Your task to perform on an android device: choose inbox layout in the gmail app Image 0: 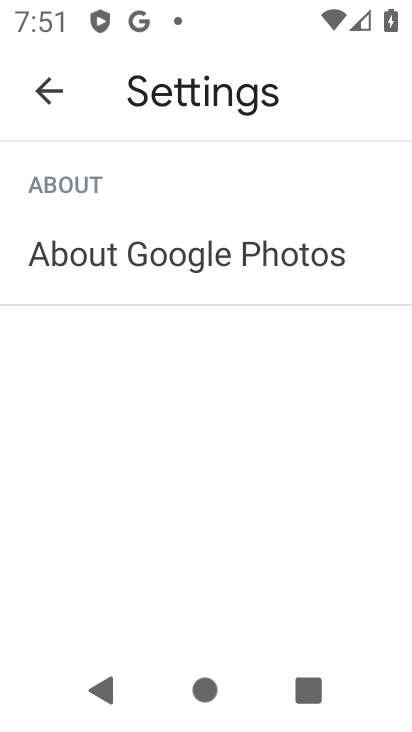
Step 0: press home button
Your task to perform on an android device: choose inbox layout in the gmail app Image 1: 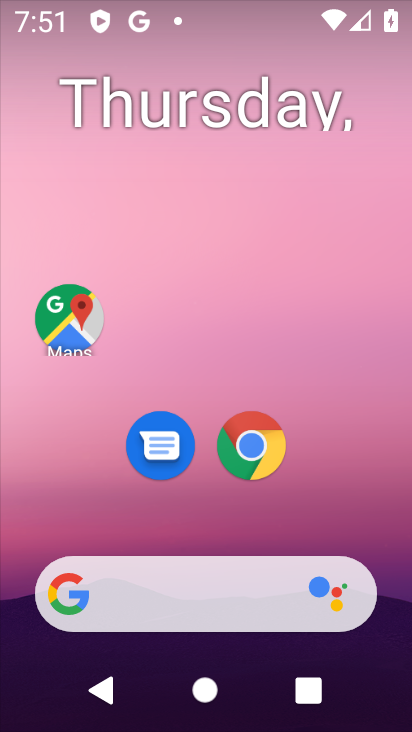
Step 1: drag from (391, 492) to (355, 193)
Your task to perform on an android device: choose inbox layout in the gmail app Image 2: 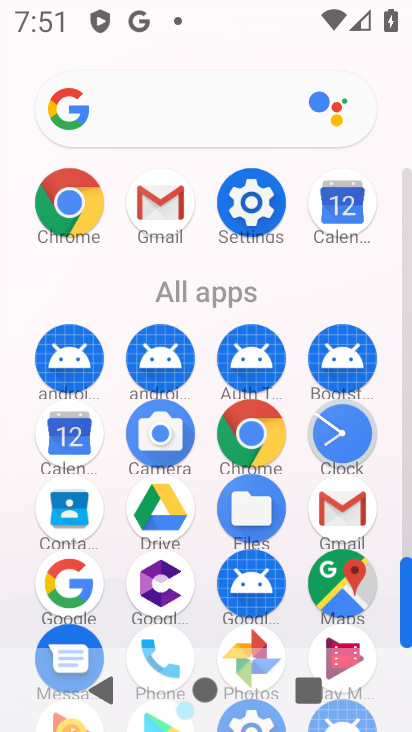
Step 2: click (350, 507)
Your task to perform on an android device: choose inbox layout in the gmail app Image 3: 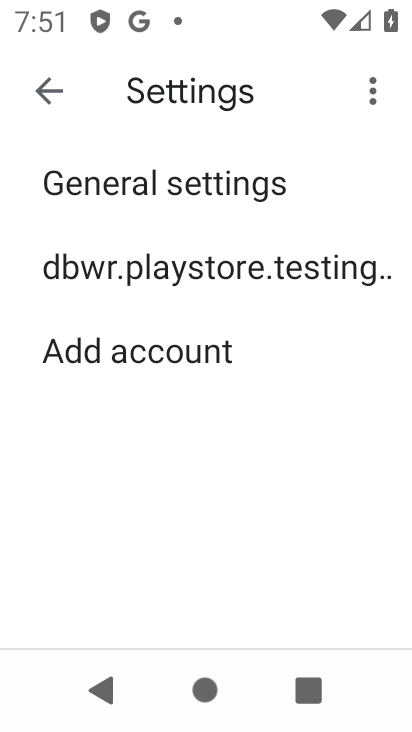
Step 3: click (274, 275)
Your task to perform on an android device: choose inbox layout in the gmail app Image 4: 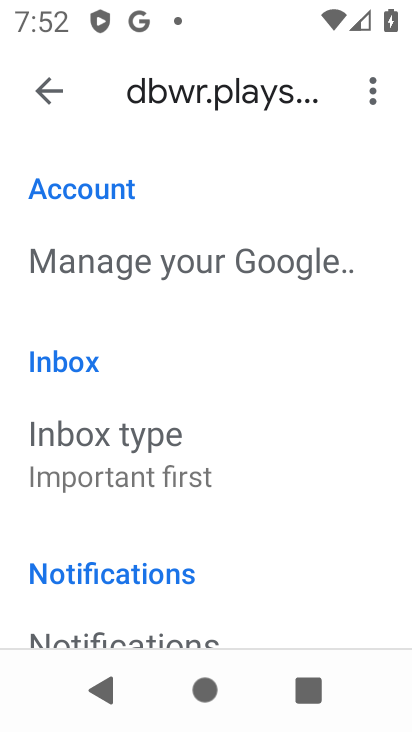
Step 4: drag from (268, 568) to (260, 296)
Your task to perform on an android device: choose inbox layout in the gmail app Image 5: 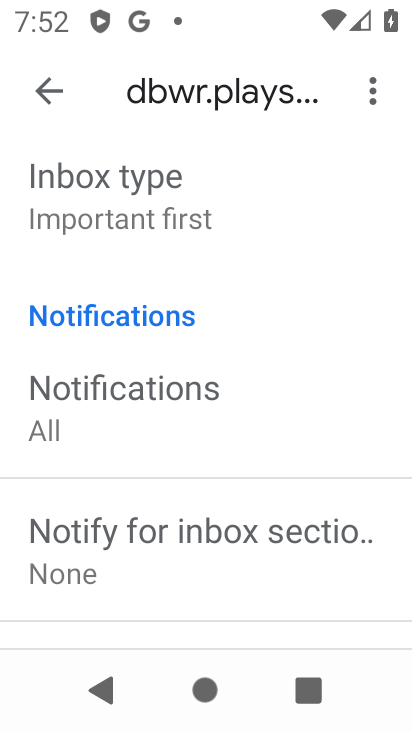
Step 5: click (167, 231)
Your task to perform on an android device: choose inbox layout in the gmail app Image 6: 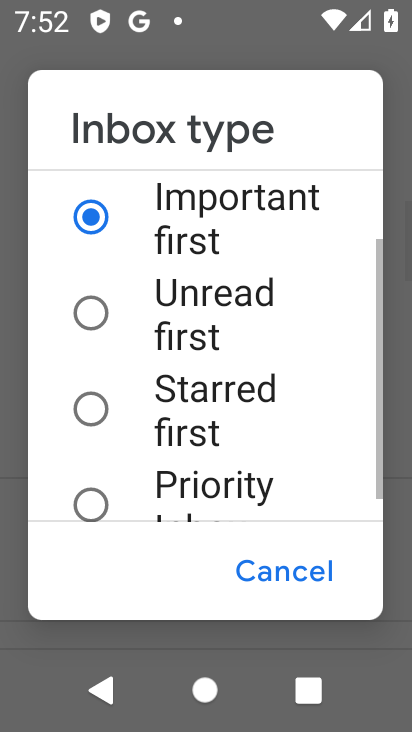
Step 6: click (92, 315)
Your task to perform on an android device: choose inbox layout in the gmail app Image 7: 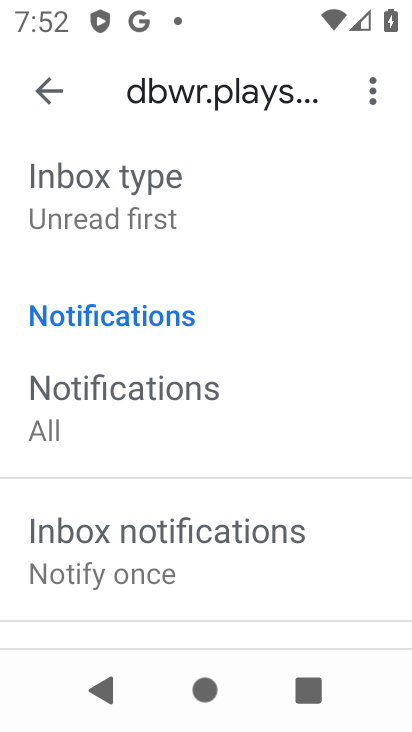
Step 7: task complete